Your task to perform on an android device: Open location settings Image 0: 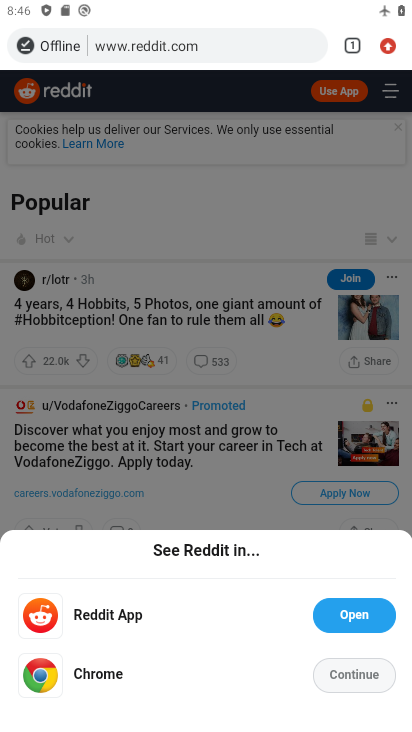
Step 0: press home button
Your task to perform on an android device: Open location settings Image 1: 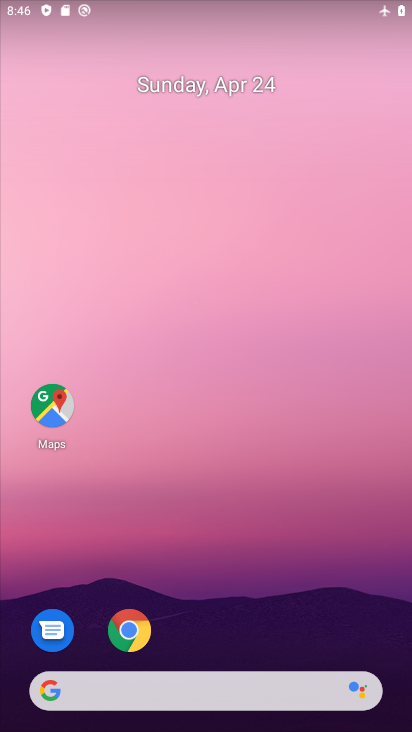
Step 1: drag from (198, 604) to (277, 148)
Your task to perform on an android device: Open location settings Image 2: 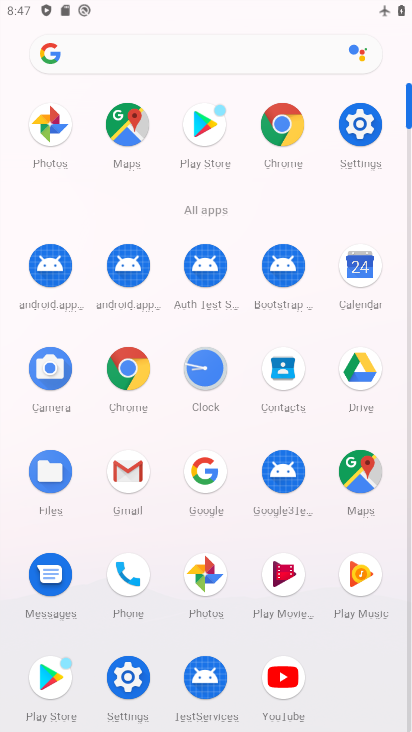
Step 2: click (348, 127)
Your task to perform on an android device: Open location settings Image 3: 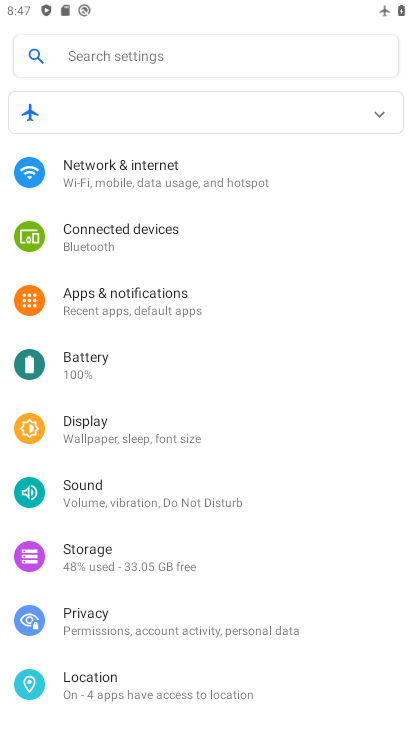
Step 3: click (133, 681)
Your task to perform on an android device: Open location settings Image 4: 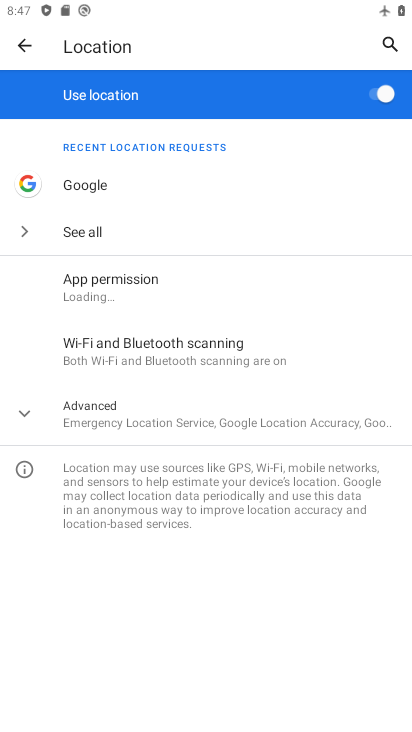
Step 4: task complete